Your task to perform on an android device: What's the weather today? Image 0: 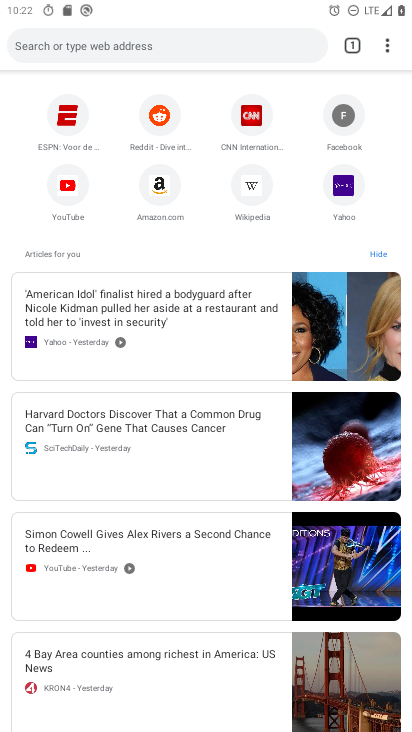
Step 0: press home button
Your task to perform on an android device: What's the weather today? Image 1: 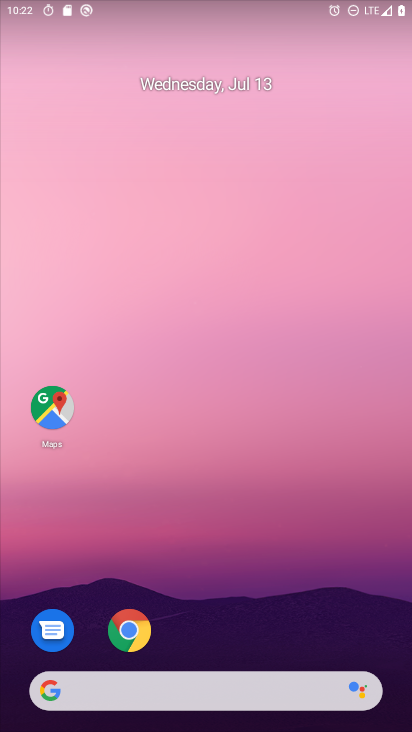
Step 1: drag from (396, 676) to (226, 30)
Your task to perform on an android device: What's the weather today? Image 2: 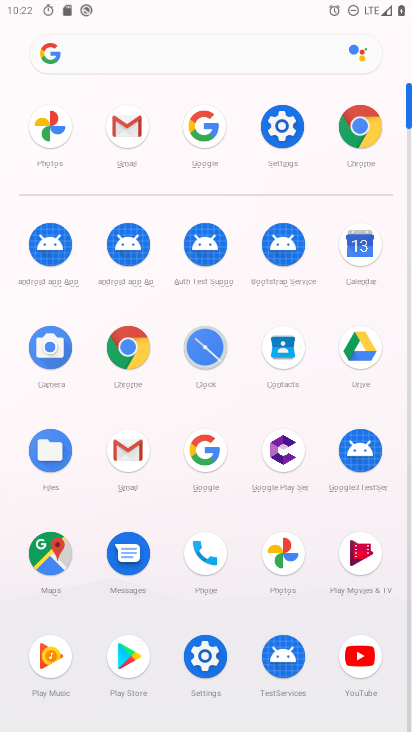
Step 2: click (209, 476)
Your task to perform on an android device: What's the weather today? Image 3: 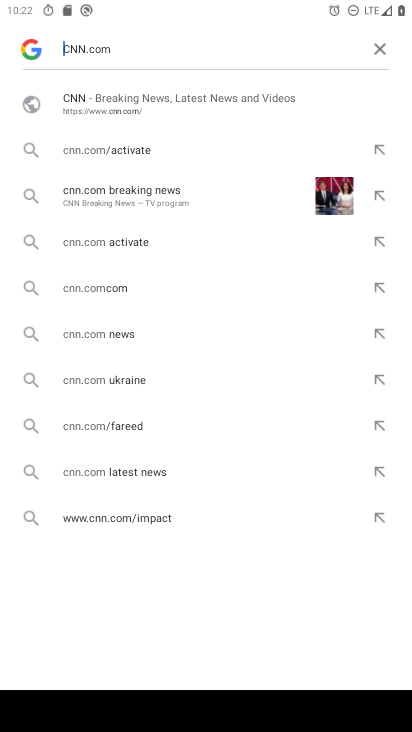
Step 3: click (377, 50)
Your task to perform on an android device: What's the weather today? Image 4: 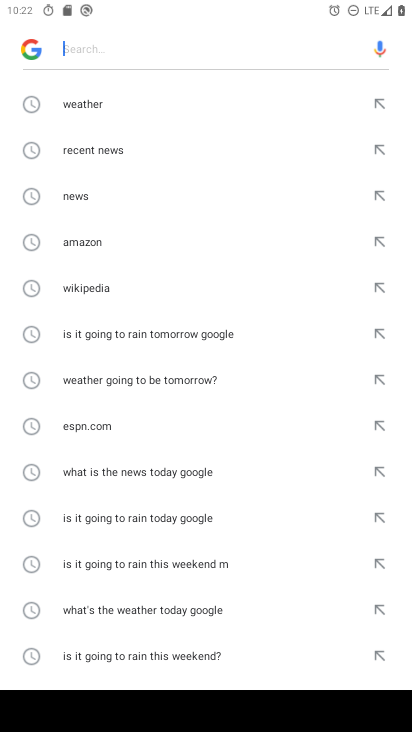
Step 4: click (99, 102)
Your task to perform on an android device: What's the weather today? Image 5: 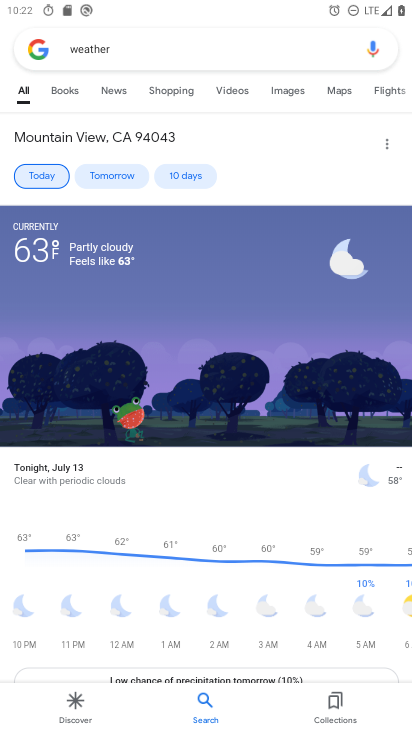
Step 5: task complete